Your task to perform on an android device: change the clock style Image 0: 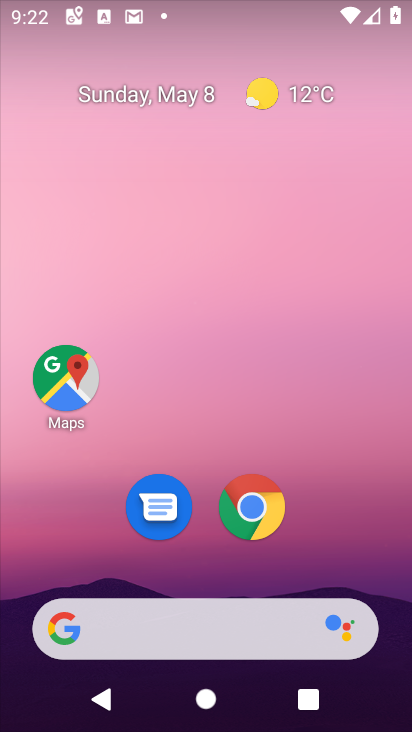
Step 0: drag from (240, 571) to (197, 141)
Your task to perform on an android device: change the clock style Image 1: 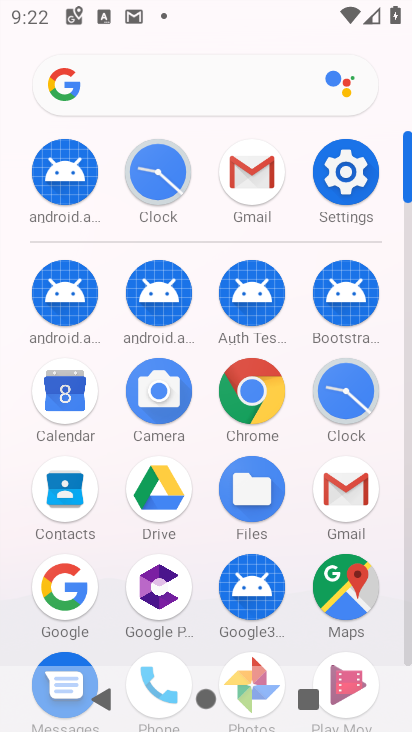
Step 1: click (352, 395)
Your task to perform on an android device: change the clock style Image 2: 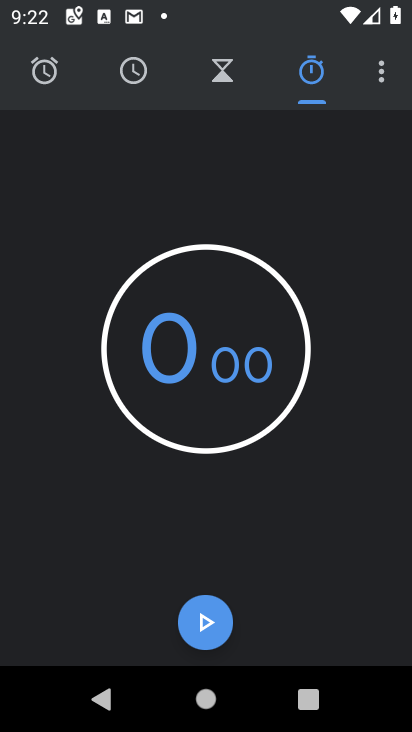
Step 2: click (395, 66)
Your task to perform on an android device: change the clock style Image 3: 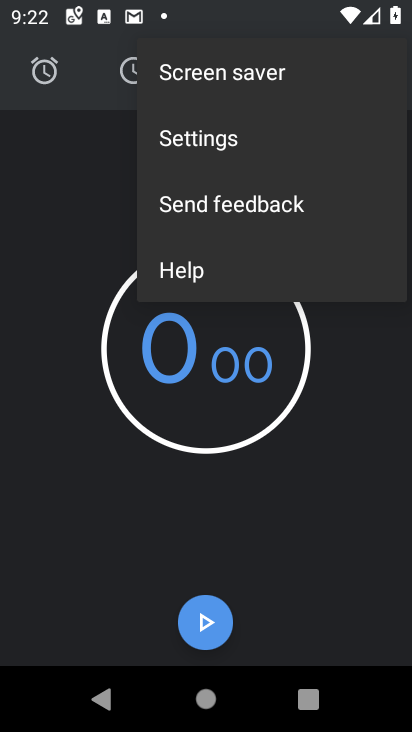
Step 3: click (245, 144)
Your task to perform on an android device: change the clock style Image 4: 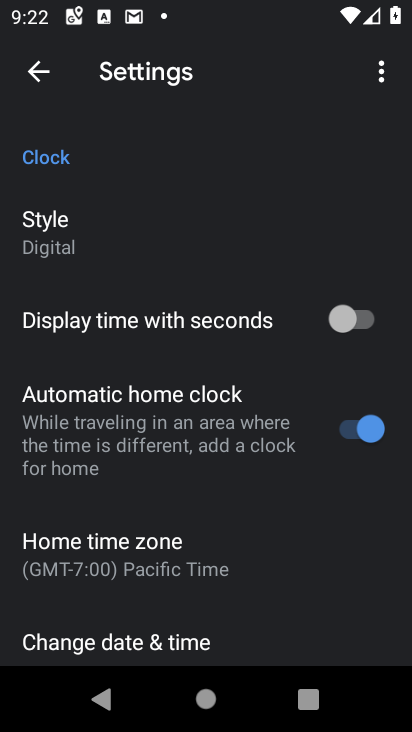
Step 4: click (36, 239)
Your task to perform on an android device: change the clock style Image 5: 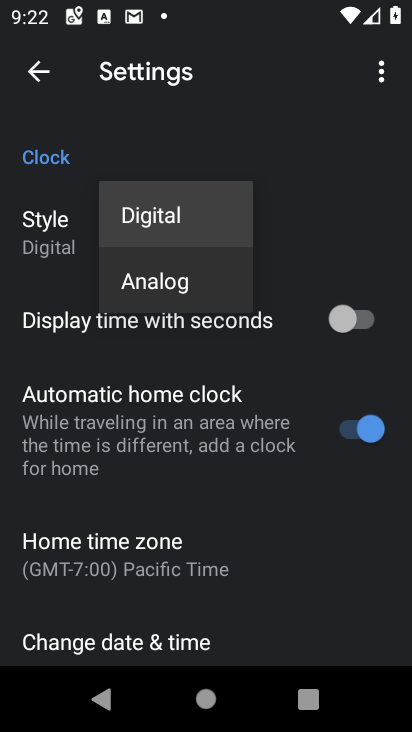
Step 5: click (144, 285)
Your task to perform on an android device: change the clock style Image 6: 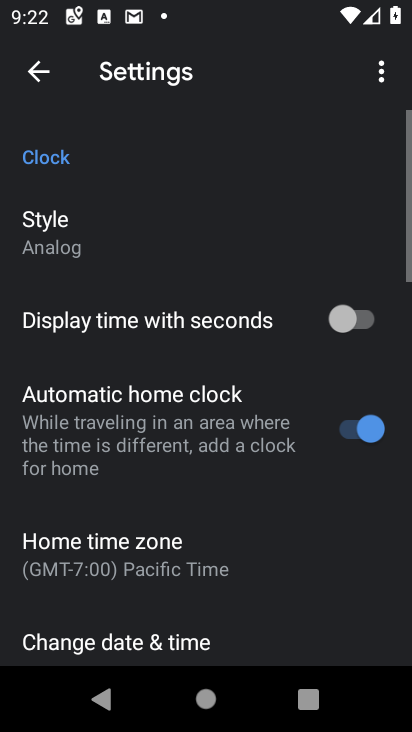
Step 6: task complete